Your task to perform on an android device: turn off airplane mode Image 0: 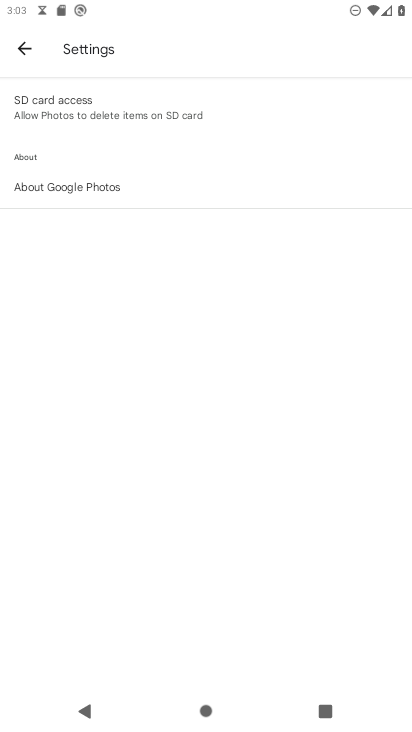
Step 0: press home button
Your task to perform on an android device: turn off airplane mode Image 1: 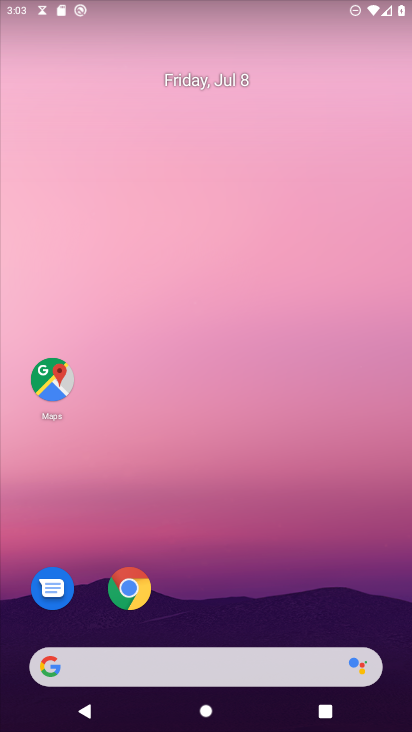
Step 1: drag from (190, 541) to (178, 1)
Your task to perform on an android device: turn off airplane mode Image 2: 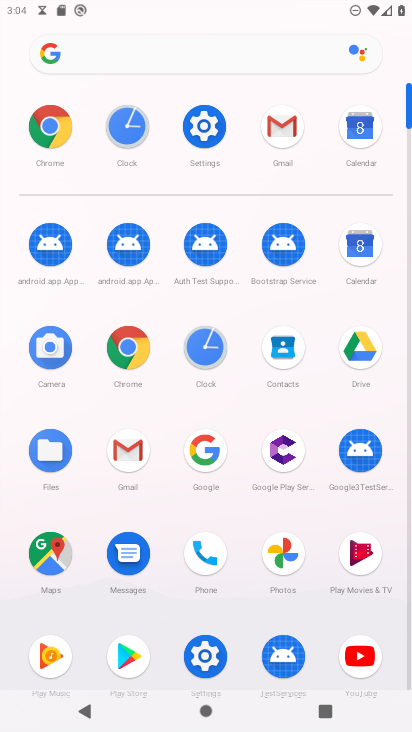
Step 2: click (207, 670)
Your task to perform on an android device: turn off airplane mode Image 3: 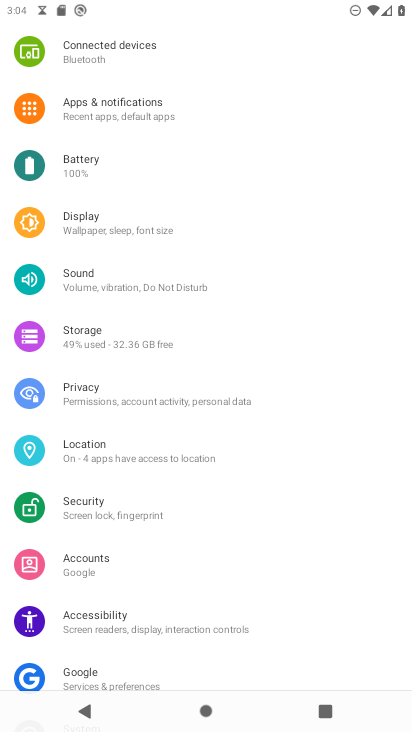
Step 3: click (200, 676)
Your task to perform on an android device: turn off airplane mode Image 4: 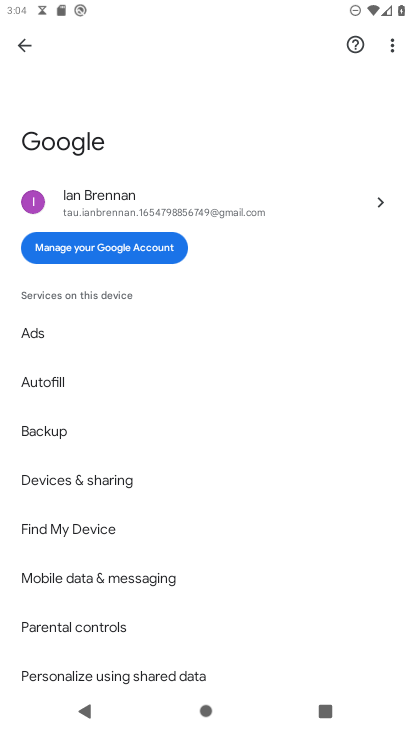
Step 4: press back button
Your task to perform on an android device: turn off airplane mode Image 5: 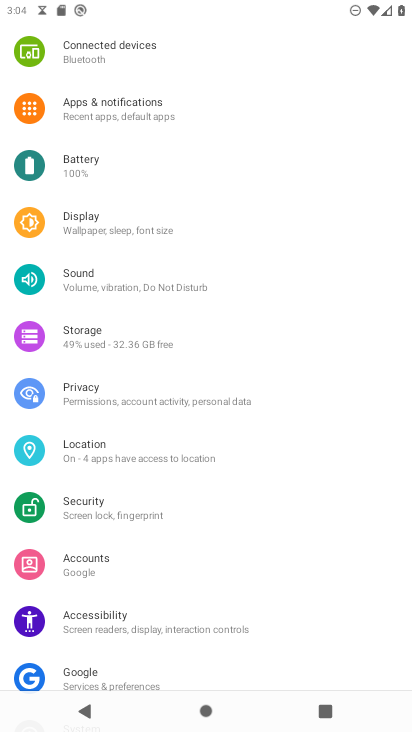
Step 5: drag from (127, 361) to (127, 475)
Your task to perform on an android device: turn off airplane mode Image 6: 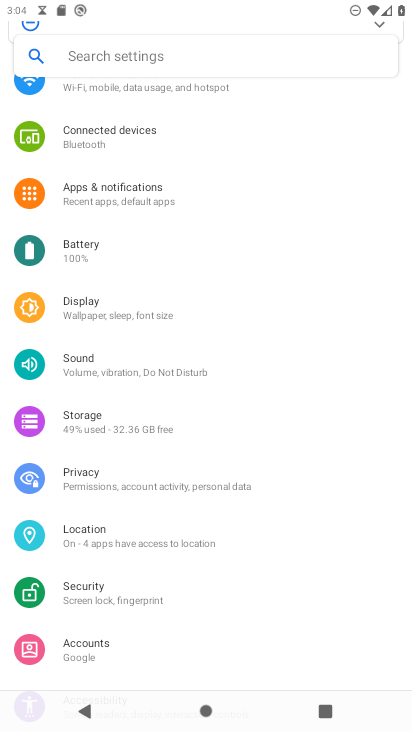
Step 6: click (117, 84)
Your task to perform on an android device: turn off airplane mode Image 7: 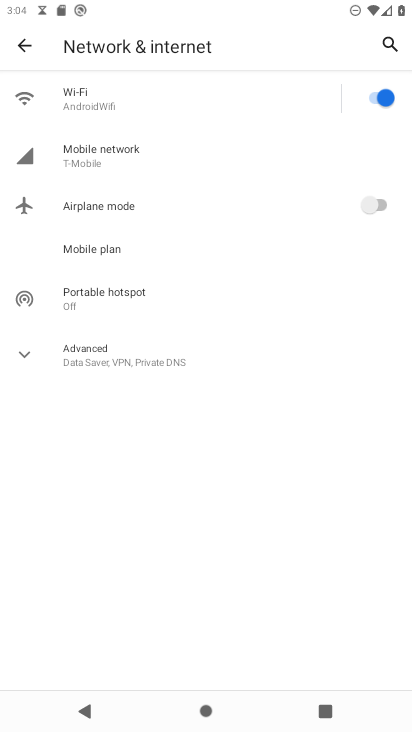
Step 7: task complete